Your task to perform on an android device: Open Google Chrome and open the bookmarks view Image 0: 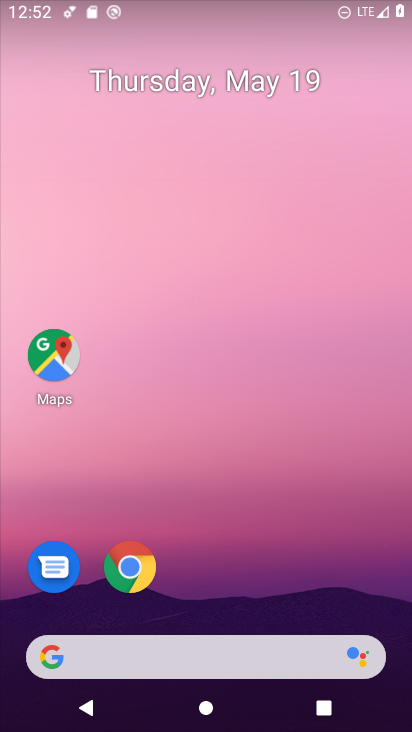
Step 0: click (138, 574)
Your task to perform on an android device: Open Google Chrome and open the bookmarks view Image 1: 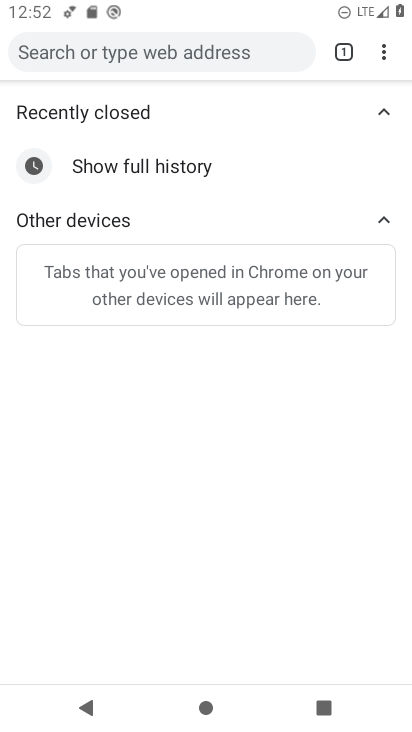
Step 1: click (384, 50)
Your task to perform on an android device: Open Google Chrome and open the bookmarks view Image 2: 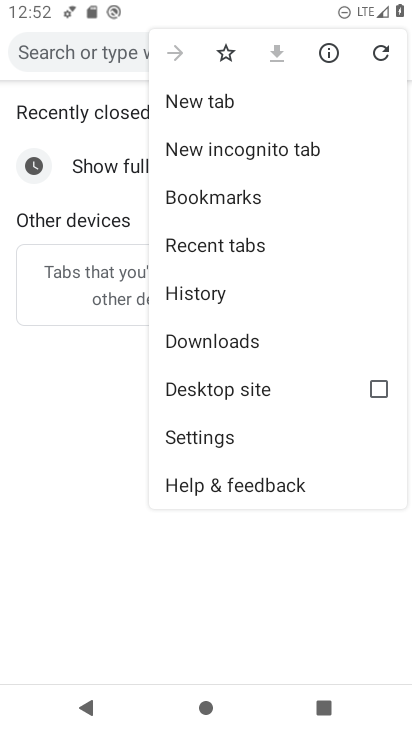
Step 2: click (267, 189)
Your task to perform on an android device: Open Google Chrome and open the bookmarks view Image 3: 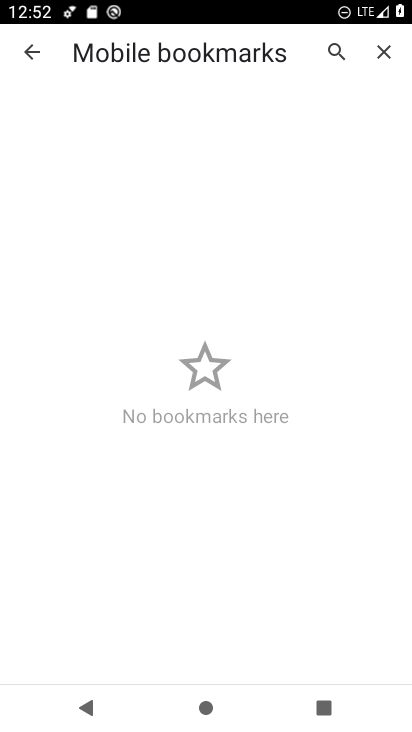
Step 3: task complete